Your task to perform on an android device: Go to location settings Image 0: 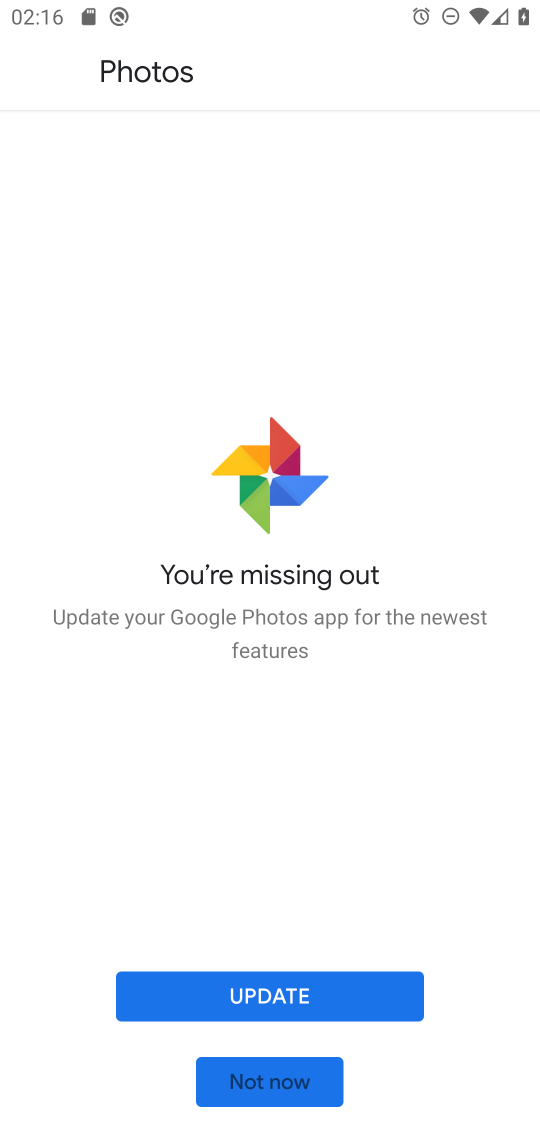
Step 0: press home button
Your task to perform on an android device: Go to location settings Image 1: 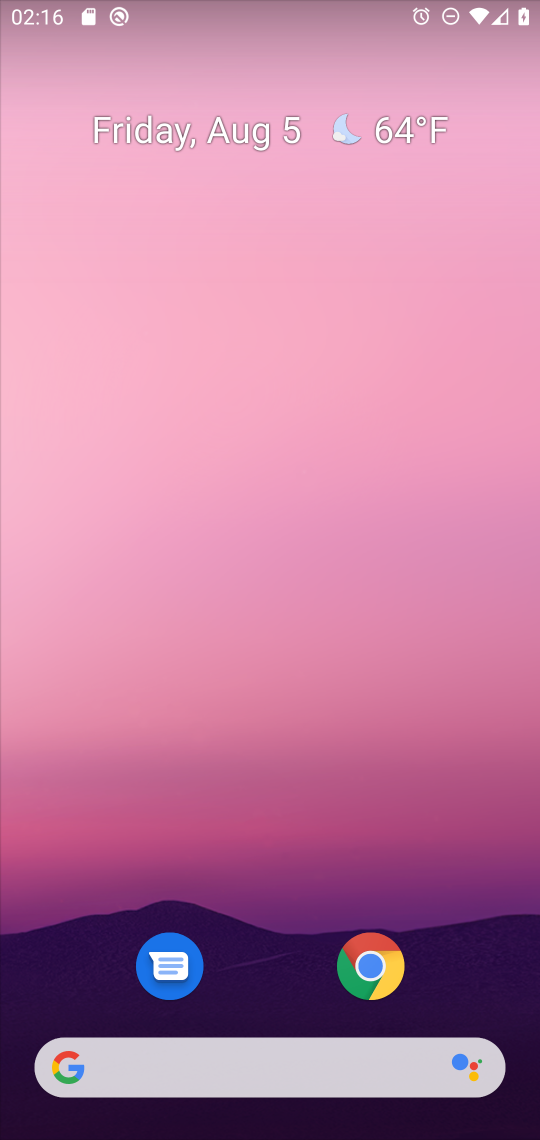
Step 1: drag from (265, 881) to (289, 29)
Your task to perform on an android device: Go to location settings Image 2: 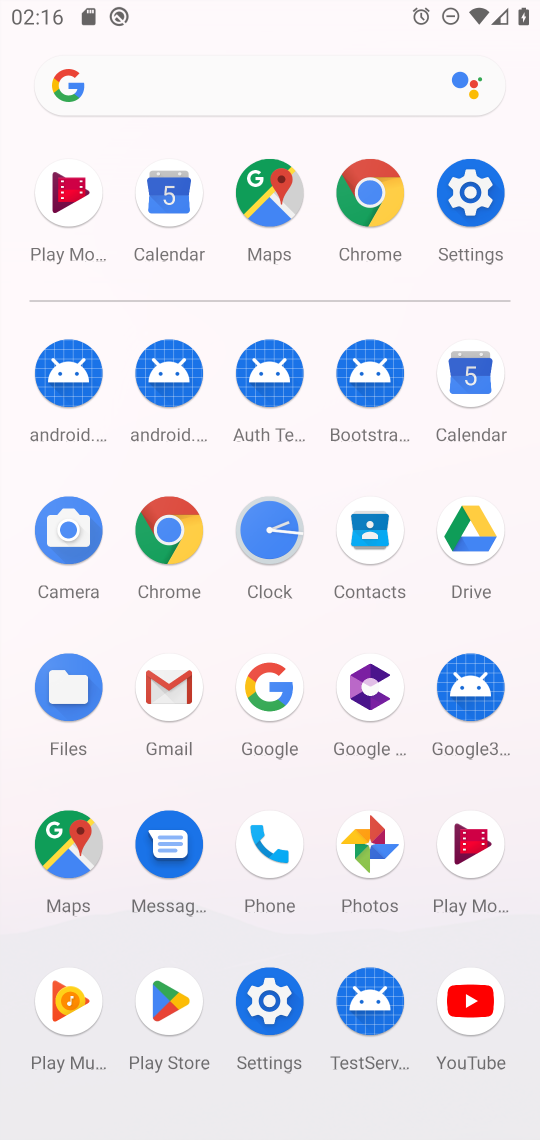
Step 2: click (472, 184)
Your task to perform on an android device: Go to location settings Image 3: 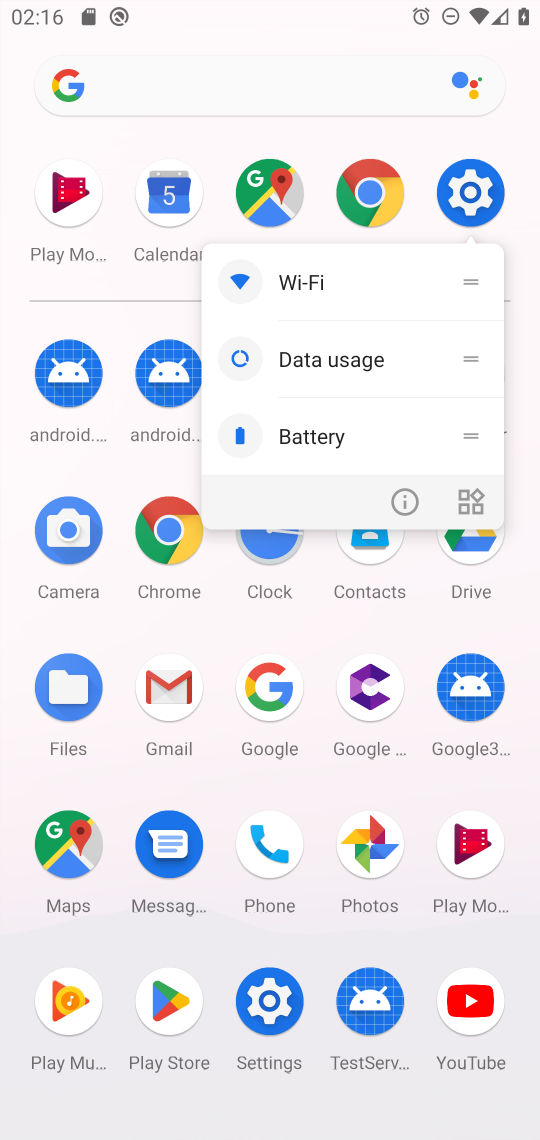
Step 3: click (472, 184)
Your task to perform on an android device: Go to location settings Image 4: 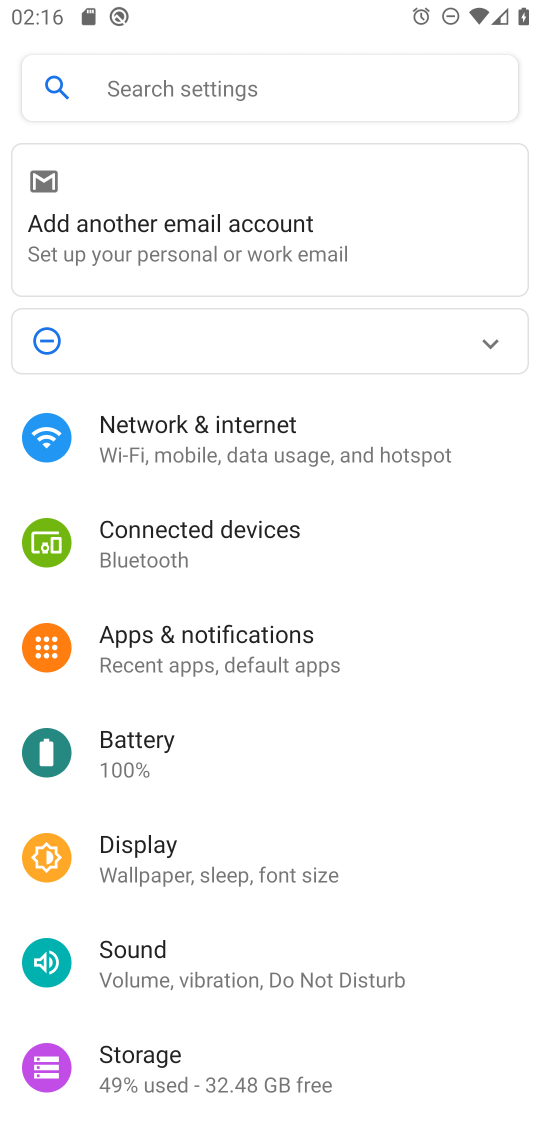
Step 4: drag from (225, 1019) to (333, 134)
Your task to perform on an android device: Go to location settings Image 5: 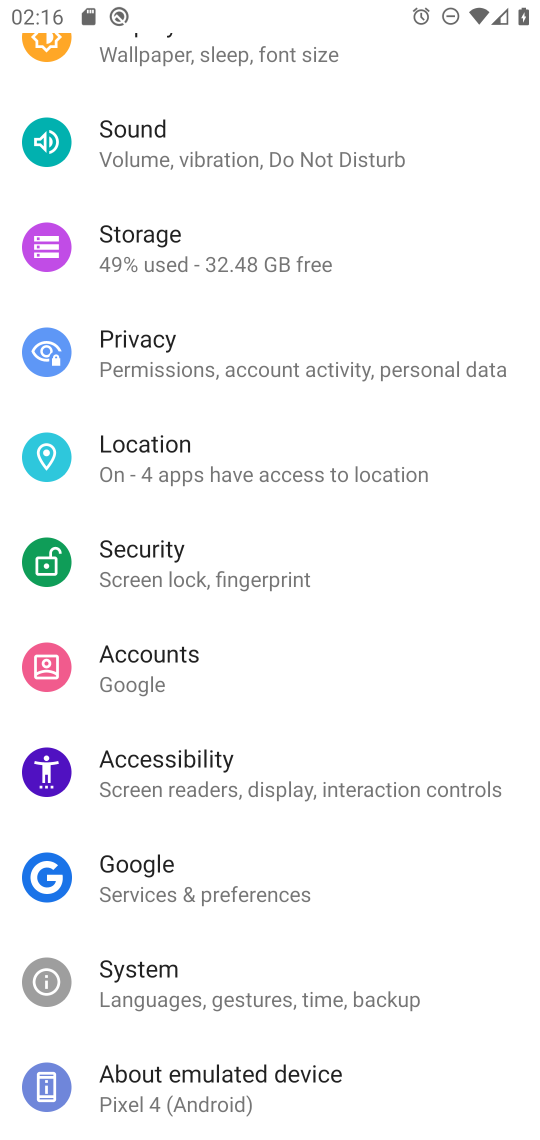
Step 5: click (301, 452)
Your task to perform on an android device: Go to location settings Image 6: 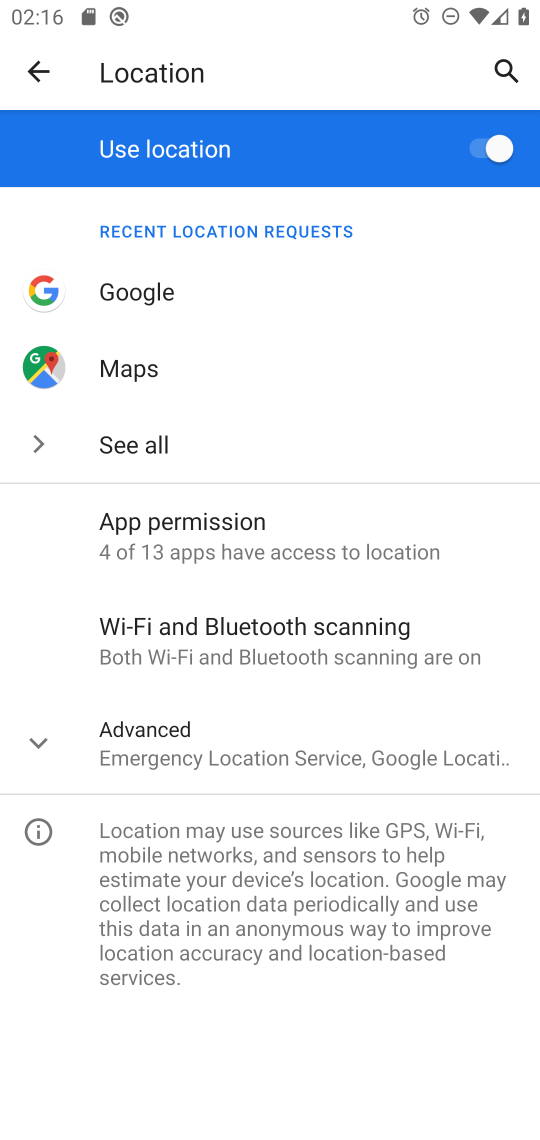
Step 6: task complete